Your task to perform on an android device: Open Wikipedia Image 0: 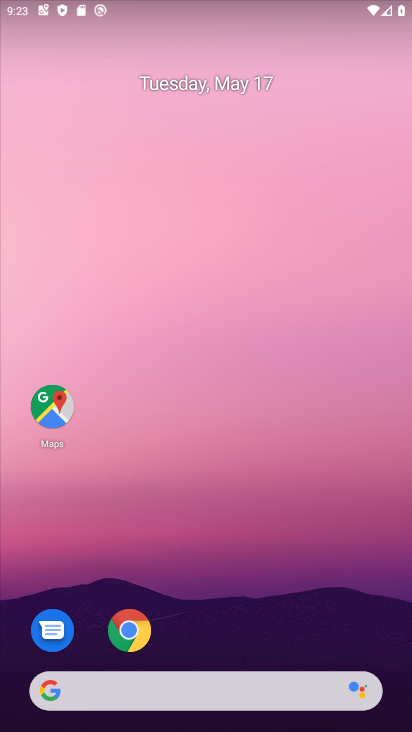
Step 0: click (138, 635)
Your task to perform on an android device: Open Wikipedia Image 1: 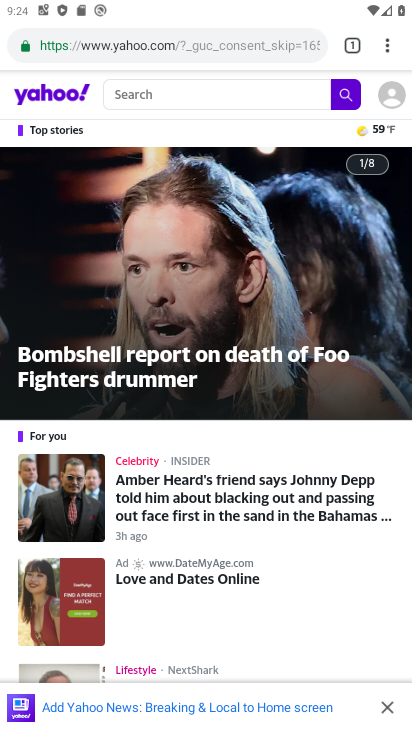
Step 1: click (354, 45)
Your task to perform on an android device: Open Wikipedia Image 2: 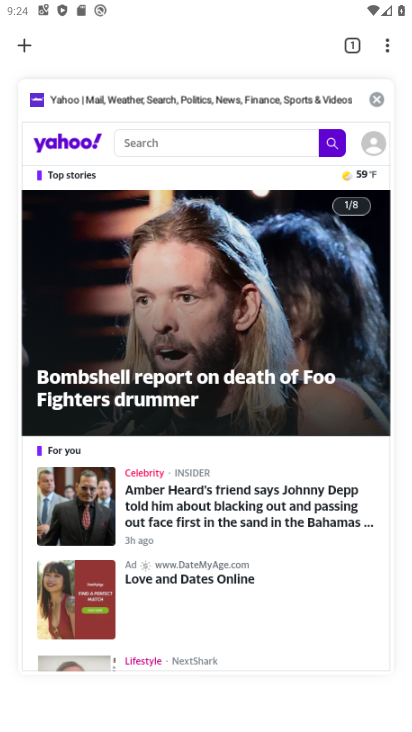
Step 2: click (21, 46)
Your task to perform on an android device: Open Wikipedia Image 3: 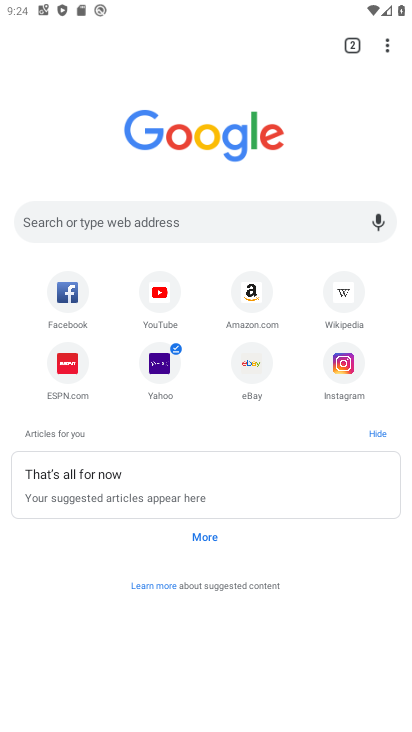
Step 3: click (335, 305)
Your task to perform on an android device: Open Wikipedia Image 4: 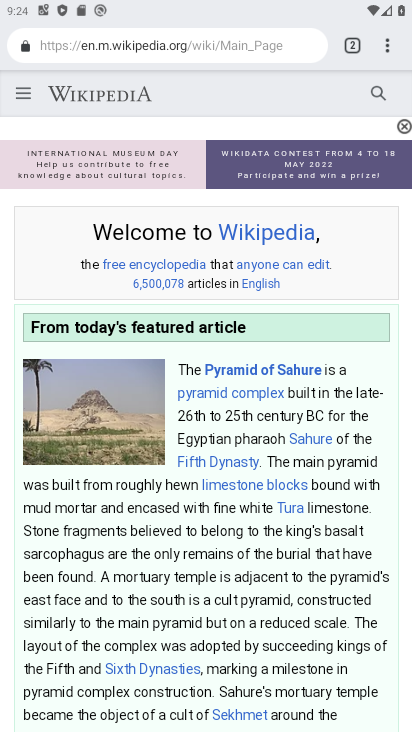
Step 4: task complete